Your task to perform on an android device: Go to CNN.com Image 0: 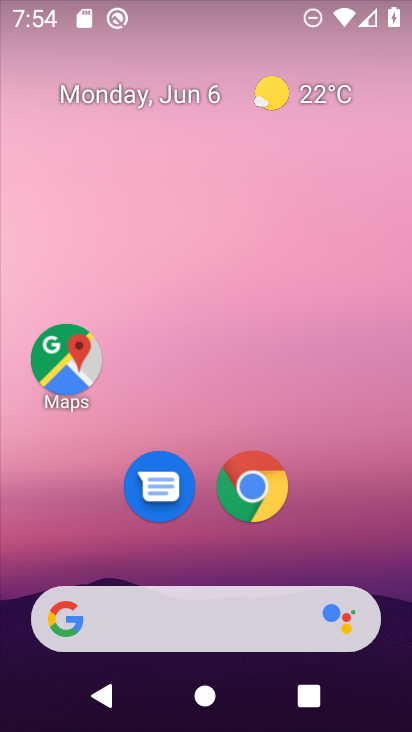
Step 0: drag from (393, 623) to (257, 71)
Your task to perform on an android device: Go to CNN.com Image 1: 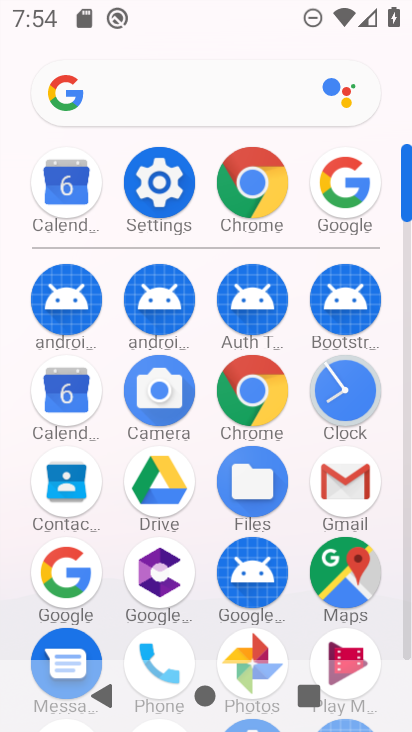
Step 1: click (80, 586)
Your task to perform on an android device: Go to CNN.com Image 2: 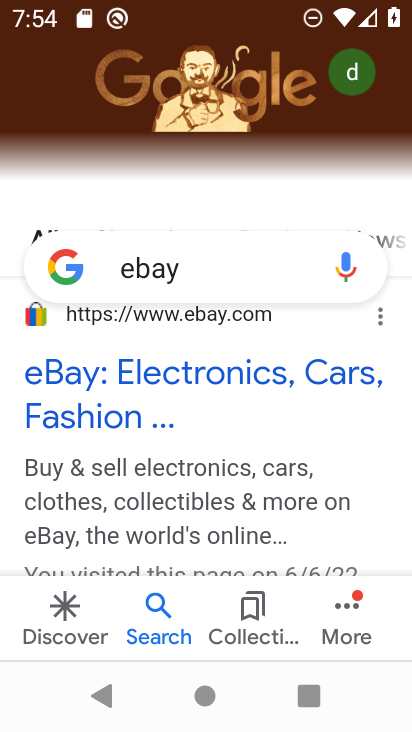
Step 2: press back button
Your task to perform on an android device: Go to CNN.com Image 3: 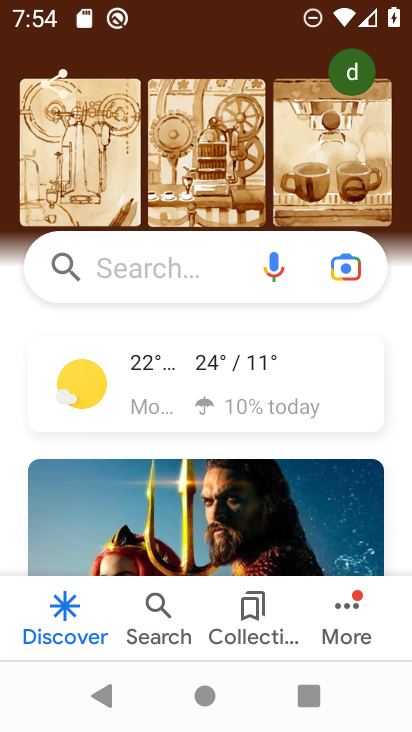
Step 3: click (124, 273)
Your task to perform on an android device: Go to CNN.com Image 4: 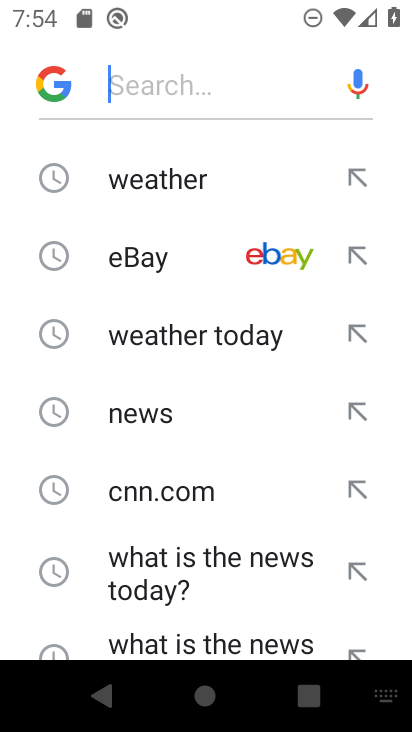
Step 4: click (168, 499)
Your task to perform on an android device: Go to CNN.com Image 5: 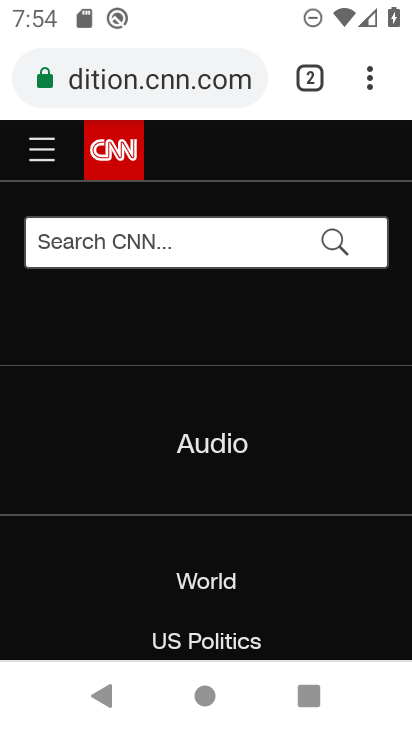
Step 5: task complete